Your task to perform on an android device: open device folders in google photos Image 0: 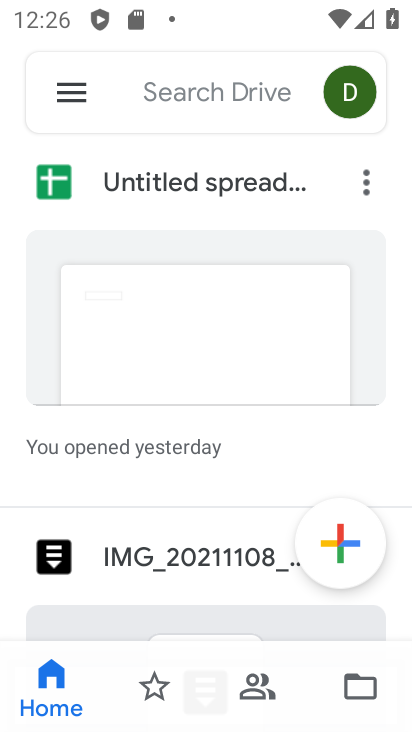
Step 0: press home button
Your task to perform on an android device: open device folders in google photos Image 1: 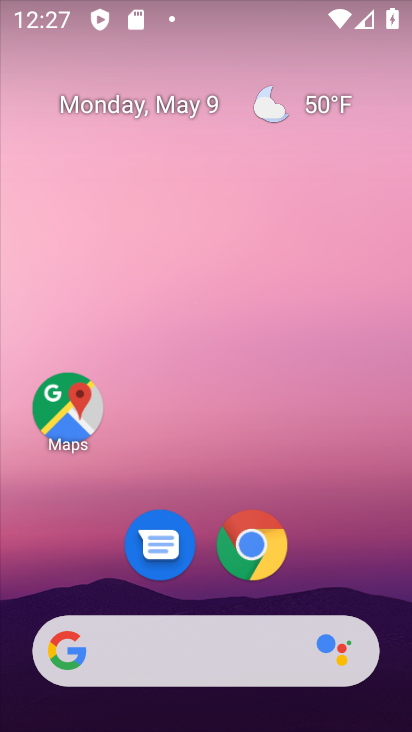
Step 1: drag from (194, 583) to (145, 143)
Your task to perform on an android device: open device folders in google photos Image 2: 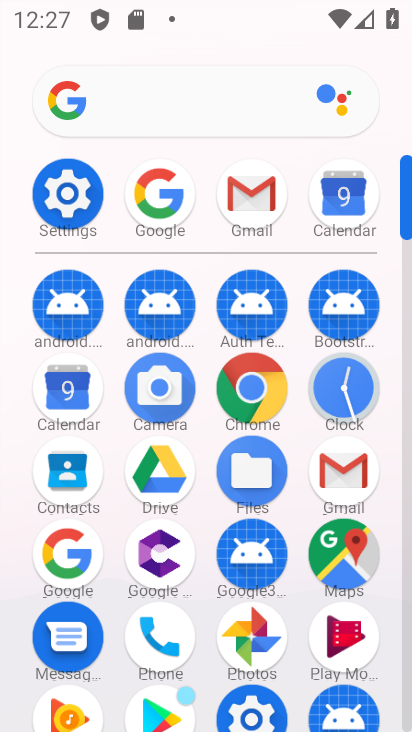
Step 2: click (233, 624)
Your task to perform on an android device: open device folders in google photos Image 3: 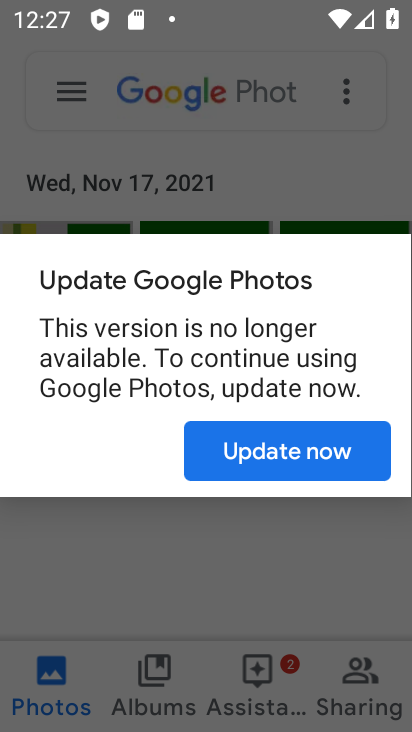
Step 3: click (236, 464)
Your task to perform on an android device: open device folders in google photos Image 4: 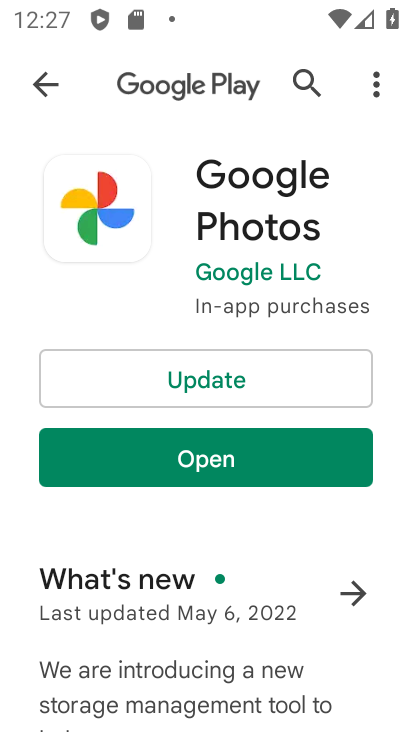
Step 4: click (220, 459)
Your task to perform on an android device: open device folders in google photos Image 5: 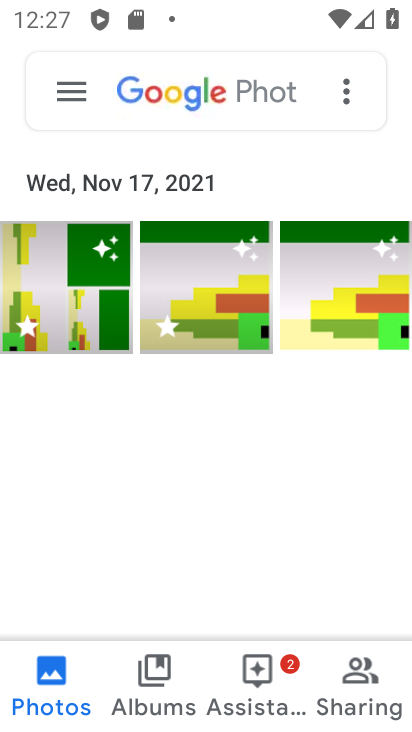
Step 5: click (69, 80)
Your task to perform on an android device: open device folders in google photos Image 6: 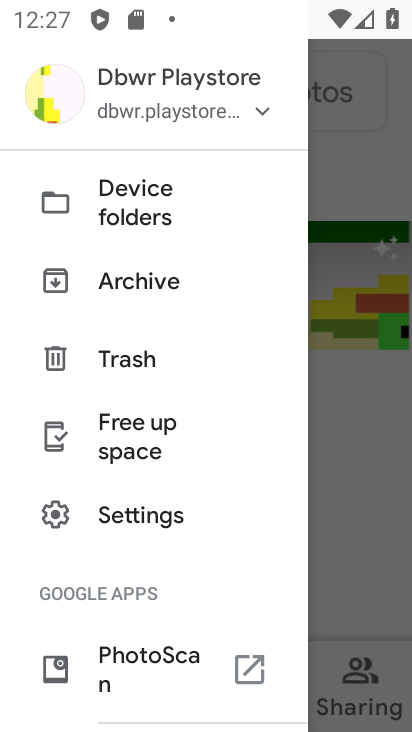
Step 6: click (147, 188)
Your task to perform on an android device: open device folders in google photos Image 7: 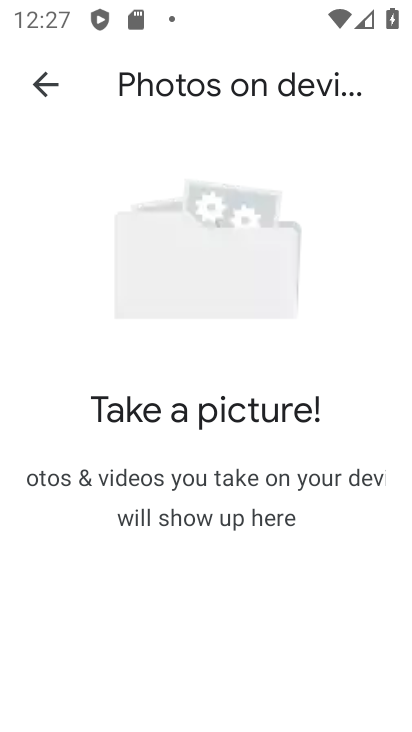
Step 7: task complete